Your task to perform on an android device: change text size in settings app Image 0: 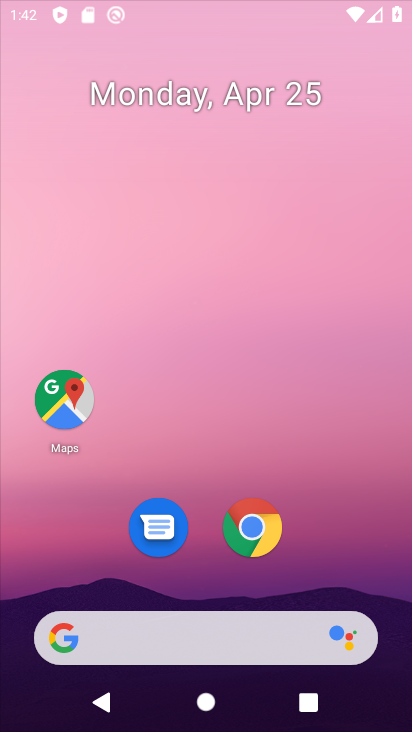
Step 0: drag from (372, 566) to (342, 57)
Your task to perform on an android device: change text size in settings app Image 1: 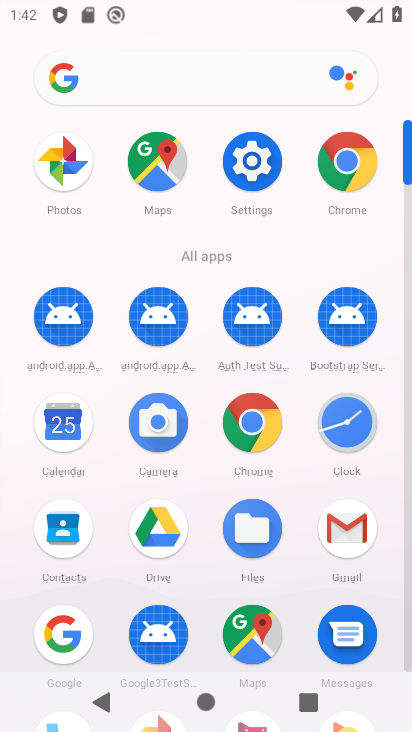
Step 1: drag from (7, 615) to (22, 262)
Your task to perform on an android device: change text size in settings app Image 2: 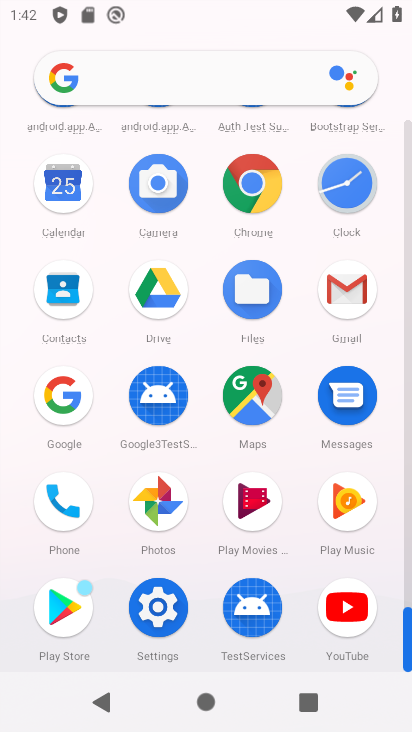
Step 2: click (163, 606)
Your task to perform on an android device: change text size in settings app Image 3: 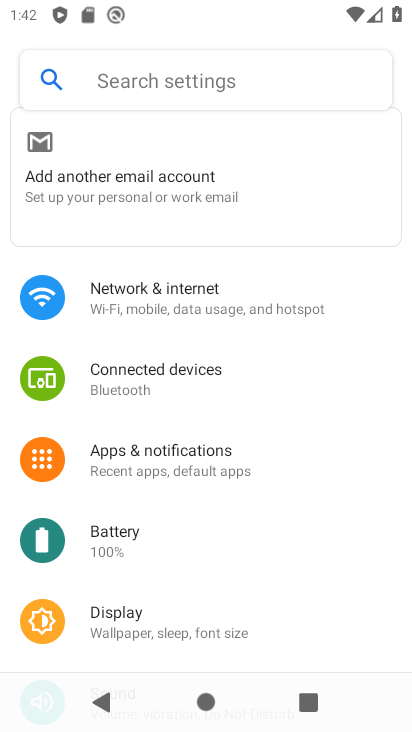
Step 3: drag from (204, 558) to (272, 260)
Your task to perform on an android device: change text size in settings app Image 4: 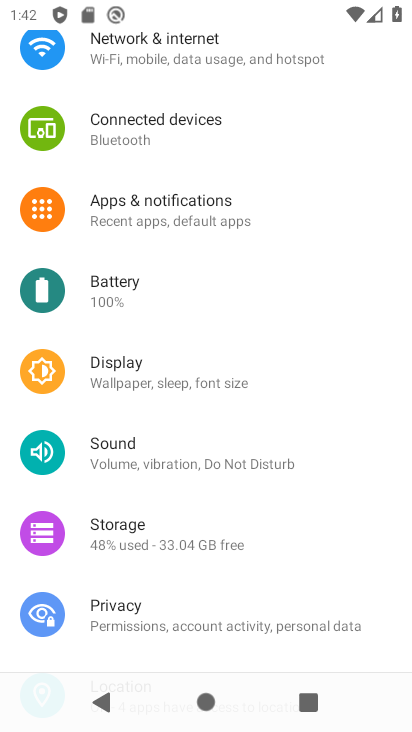
Step 4: click (200, 366)
Your task to perform on an android device: change text size in settings app Image 5: 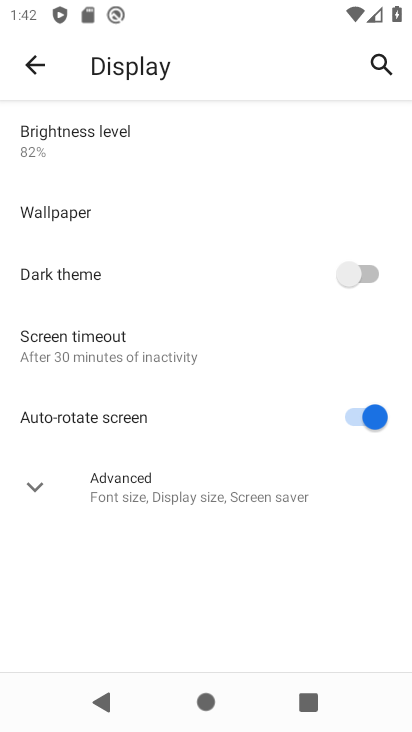
Step 5: click (58, 506)
Your task to perform on an android device: change text size in settings app Image 6: 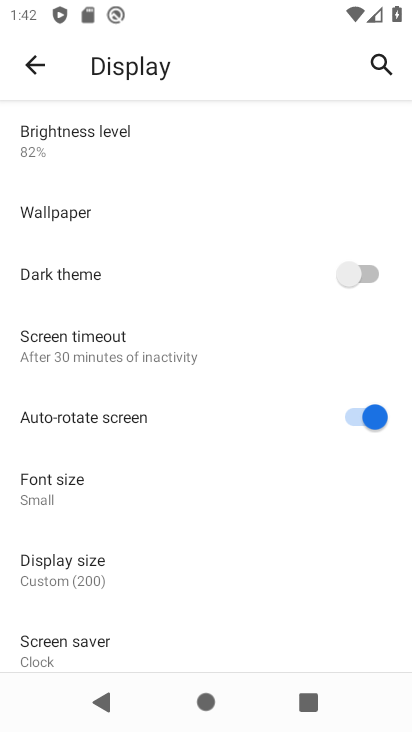
Step 6: click (97, 494)
Your task to perform on an android device: change text size in settings app Image 7: 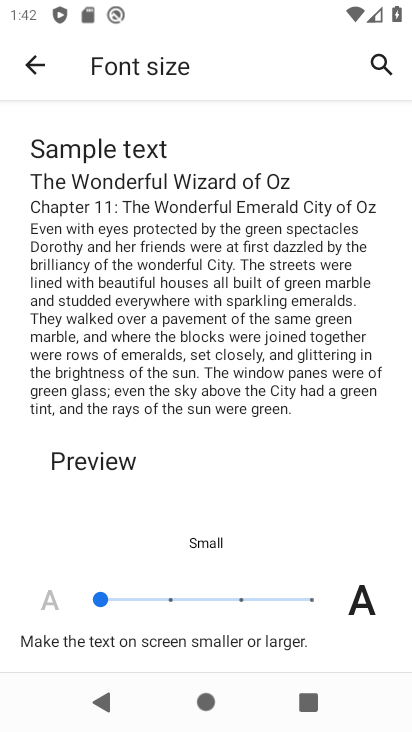
Step 7: click (302, 587)
Your task to perform on an android device: change text size in settings app Image 8: 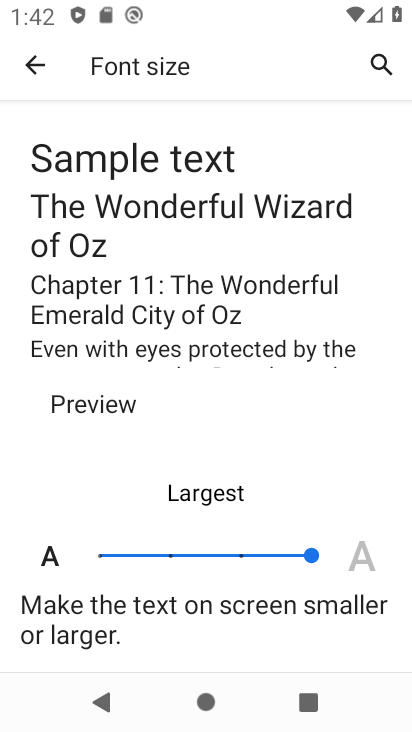
Step 8: task complete